Your task to perform on an android device: Open settings Image 0: 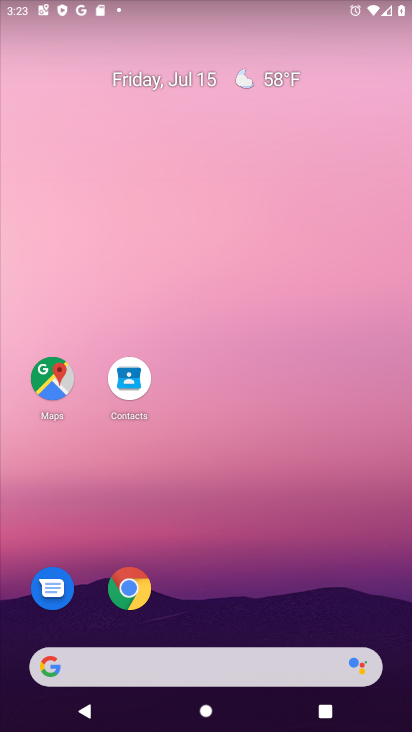
Step 0: drag from (298, 617) to (216, 40)
Your task to perform on an android device: Open settings Image 1: 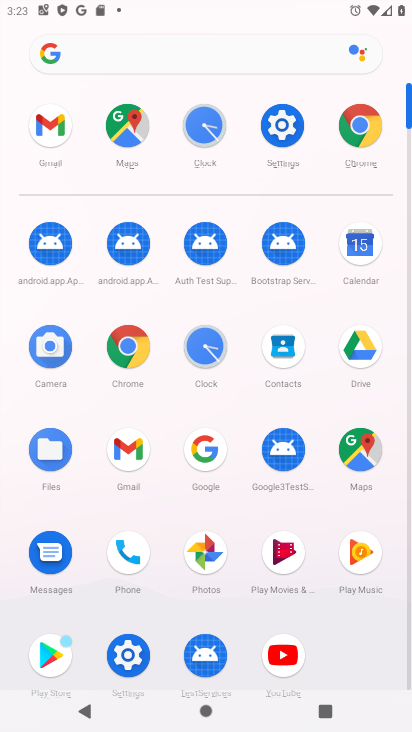
Step 1: click (268, 141)
Your task to perform on an android device: Open settings Image 2: 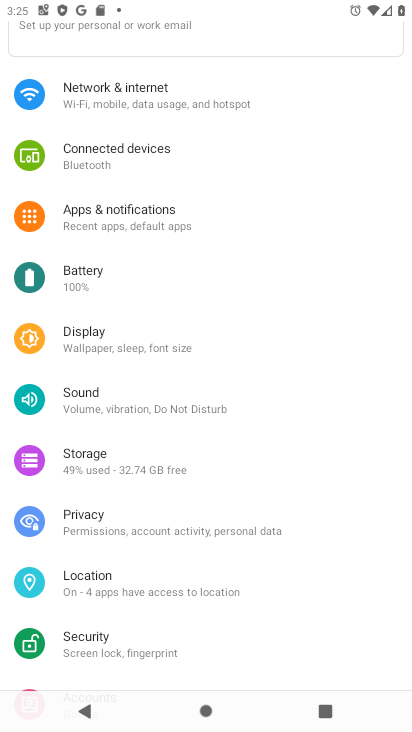
Step 2: task complete